Your task to perform on an android device: turn off location history Image 0: 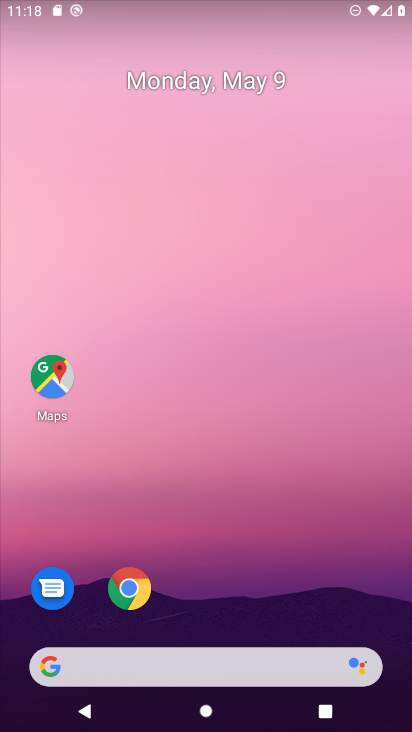
Step 0: drag from (230, 595) to (176, 62)
Your task to perform on an android device: turn off location history Image 1: 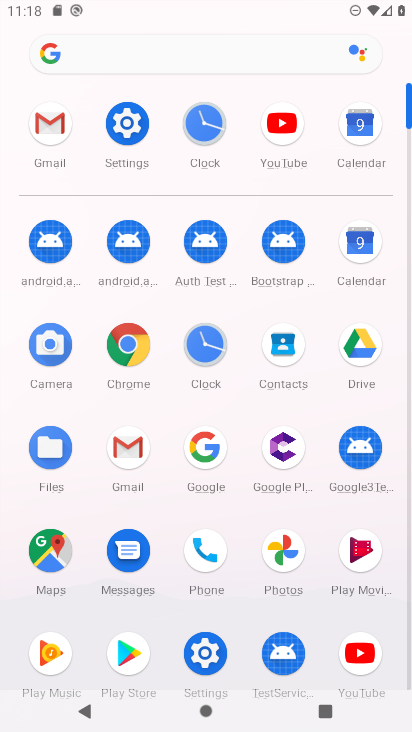
Step 1: click (135, 154)
Your task to perform on an android device: turn off location history Image 2: 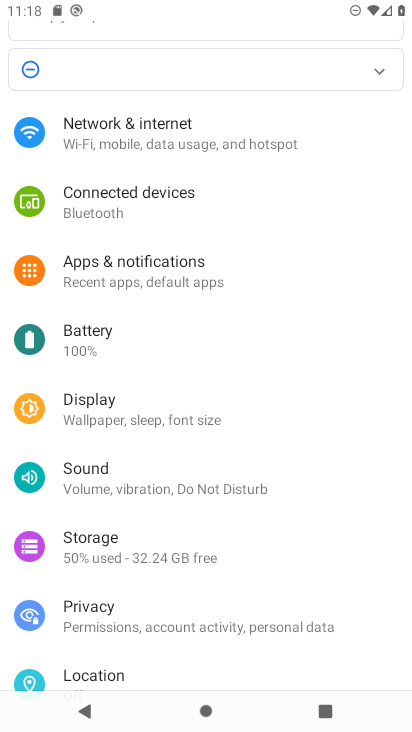
Step 2: click (170, 677)
Your task to perform on an android device: turn off location history Image 3: 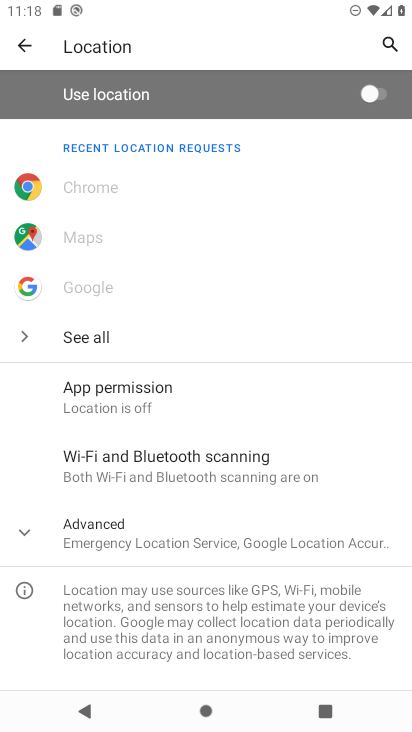
Step 3: click (196, 535)
Your task to perform on an android device: turn off location history Image 4: 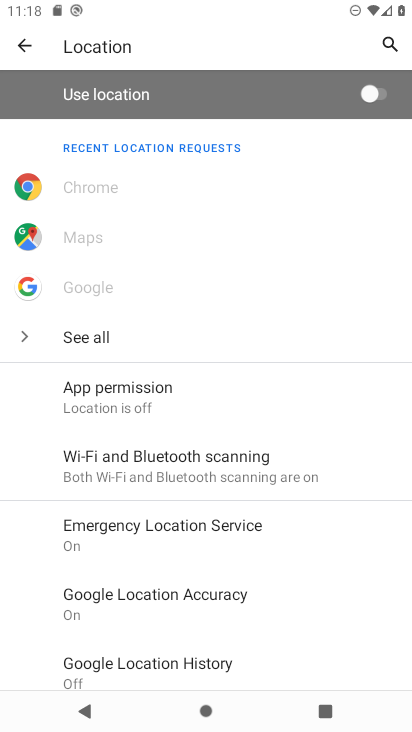
Step 4: click (189, 646)
Your task to perform on an android device: turn off location history Image 5: 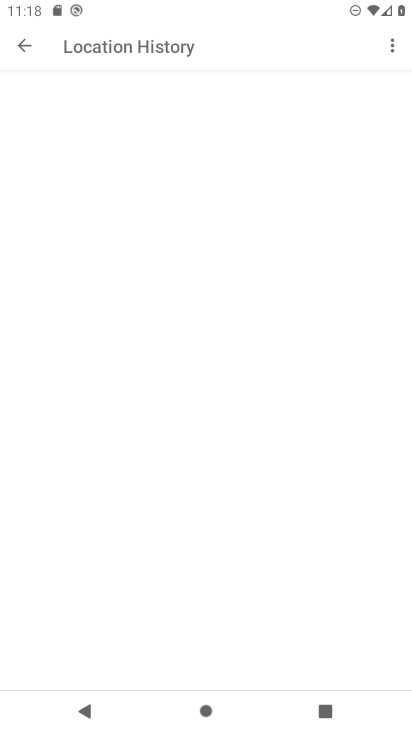
Step 5: task complete